Your task to perform on an android device: Open the calendar app, open the side menu, and click the "Day" option Image 0: 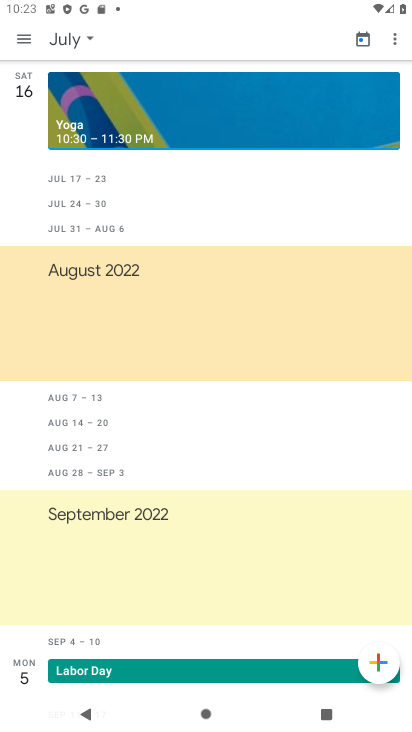
Step 0: press home button
Your task to perform on an android device: Open the calendar app, open the side menu, and click the "Day" option Image 1: 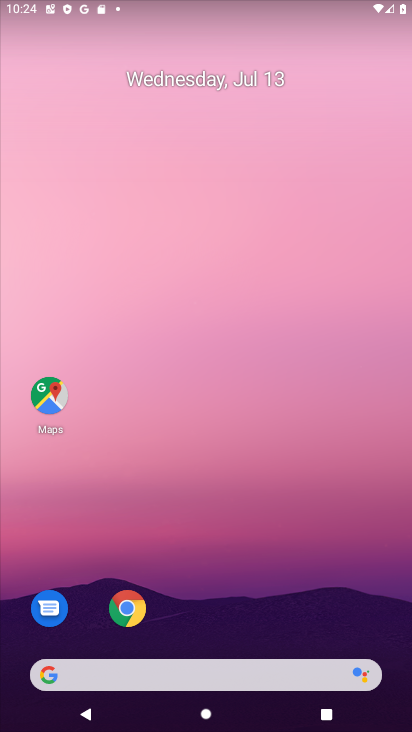
Step 1: drag from (180, 674) to (285, 213)
Your task to perform on an android device: Open the calendar app, open the side menu, and click the "Day" option Image 2: 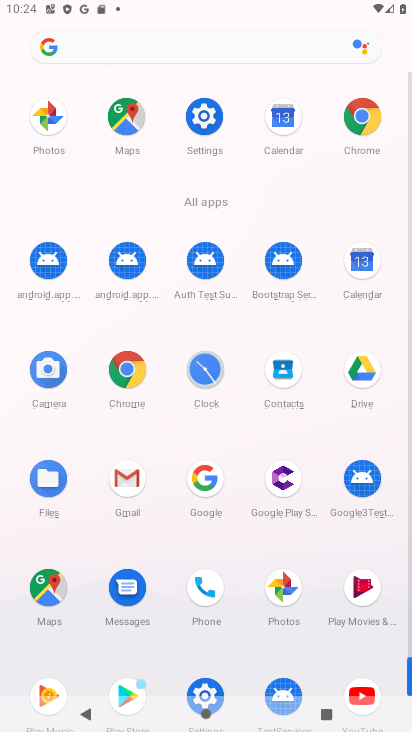
Step 2: click (284, 118)
Your task to perform on an android device: Open the calendar app, open the side menu, and click the "Day" option Image 3: 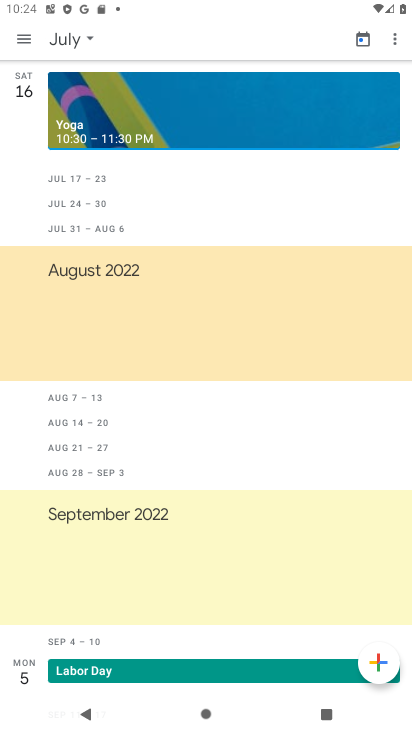
Step 3: click (22, 38)
Your task to perform on an android device: Open the calendar app, open the side menu, and click the "Day" option Image 4: 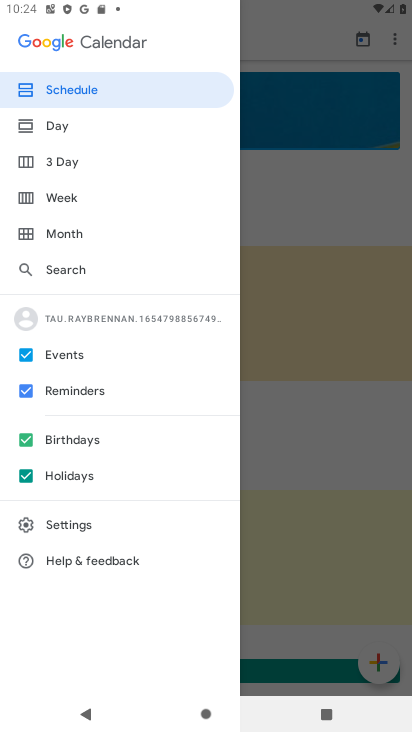
Step 4: click (51, 121)
Your task to perform on an android device: Open the calendar app, open the side menu, and click the "Day" option Image 5: 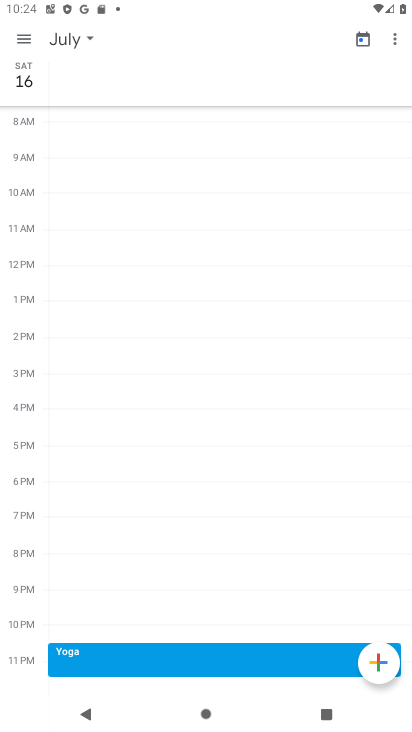
Step 5: task complete